Your task to perform on an android device: see sites visited before in the chrome app Image 0: 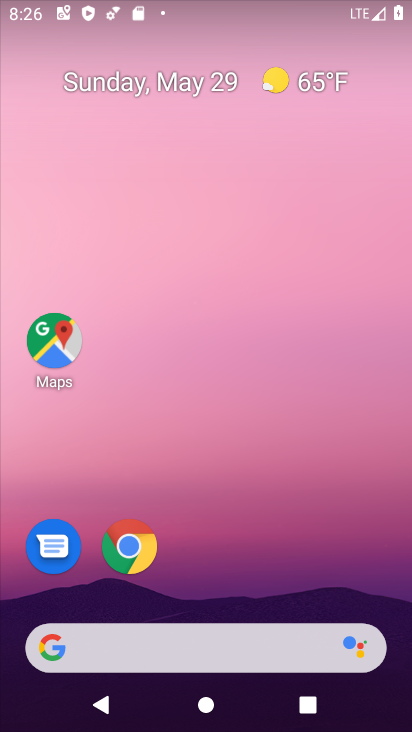
Step 0: drag from (231, 621) to (294, 114)
Your task to perform on an android device: see sites visited before in the chrome app Image 1: 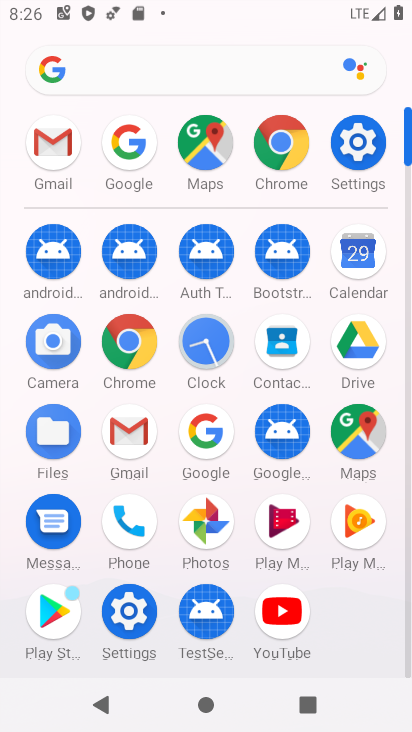
Step 1: click (298, 150)
Your task to perform on an android device: see sites visited before in the chrome app Image 2: 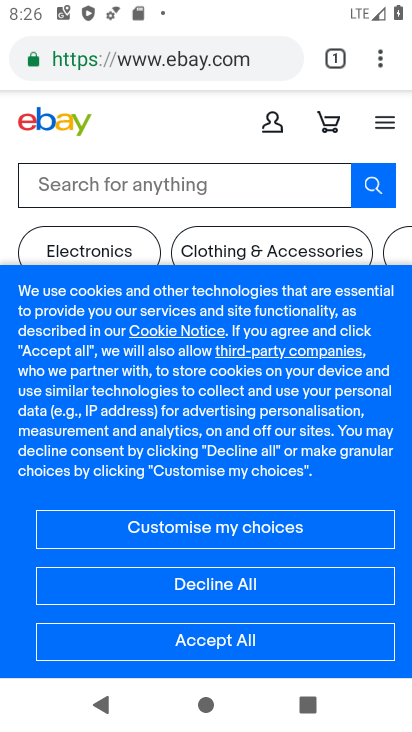
Step 2: task complete